Your task to perform on an android device: change the clock display to show seconds Image 0: 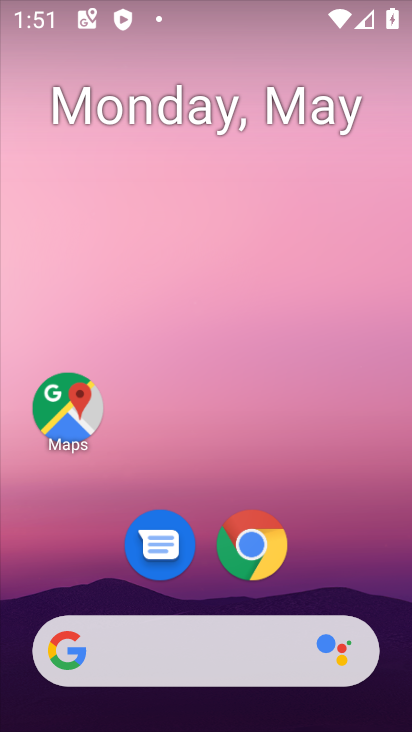
Step 0: drag from (243, 701) to (393, 277)
Your task to perform on an android device: change the clock display to show seconds Image 1: 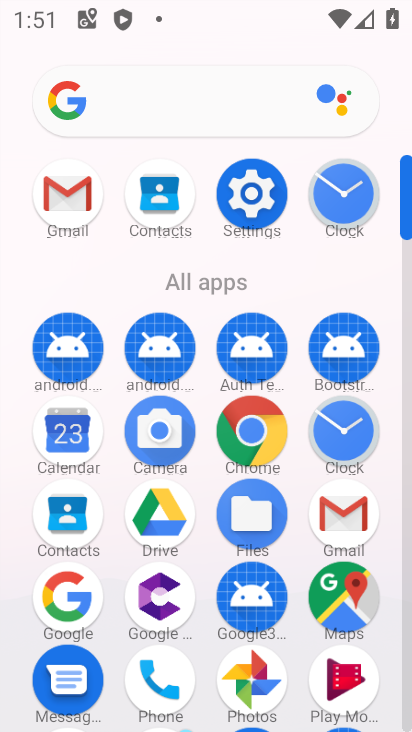
Step 1: click (355, 192)
Your task to perform on an android device: change the clock display to show seconds Image 2: 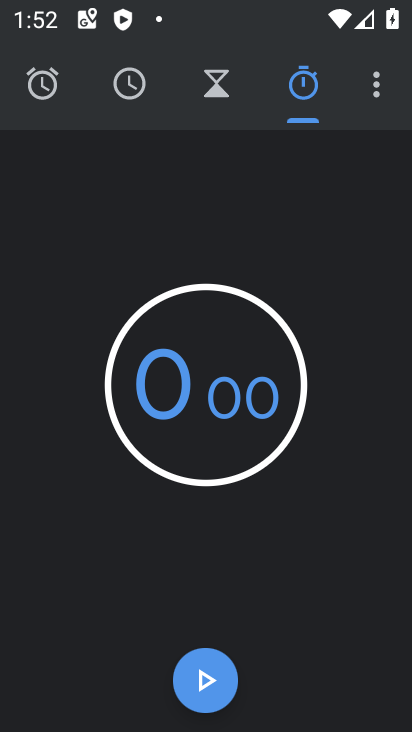
Step 2: click (379, 91)
Your task to perform on an android device: change the clock display to show seconds Image 3: 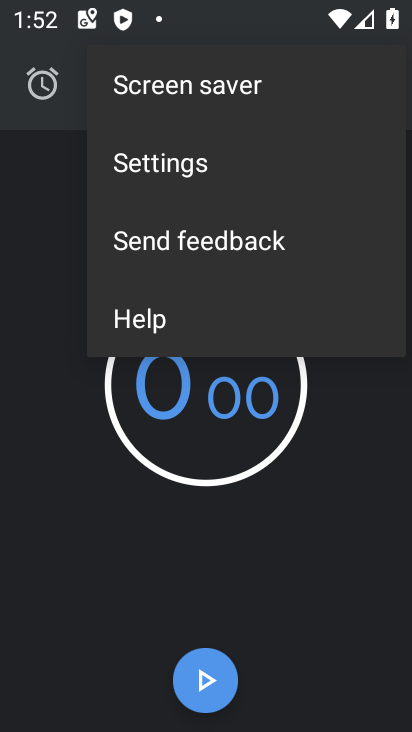
Step 3: click (262, 170)
Your task to perform on an android device: change the clock display to show seconds Image 4: 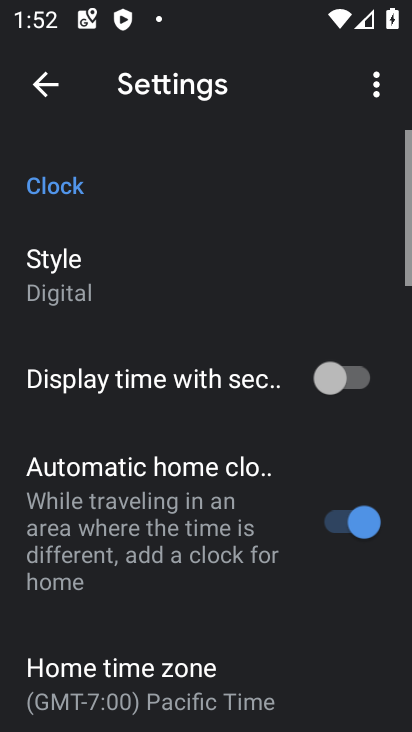
Step 4: click (360, 365)
Your task to perform on an android device: change the clock display to show seconds Image 5: 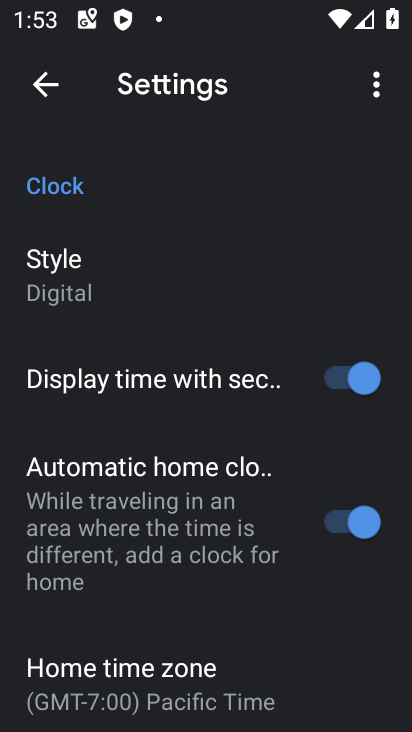
Step 5: task complete